Your task to perform on an android device: Open the web browser Image 0: 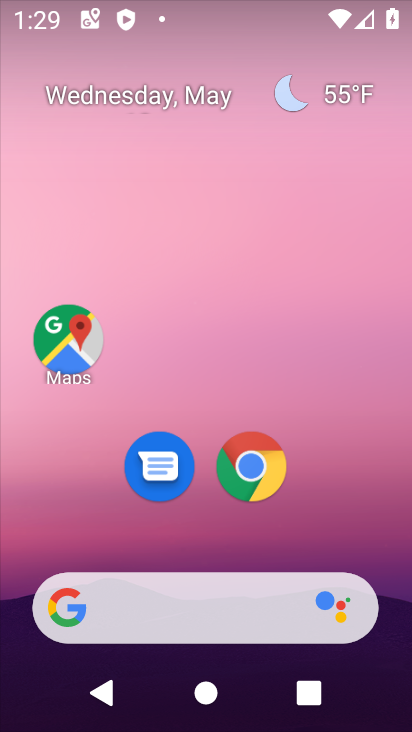
Step 0: click (251, 461)
Your task to perform on an android device: Open the web browser Image 1: 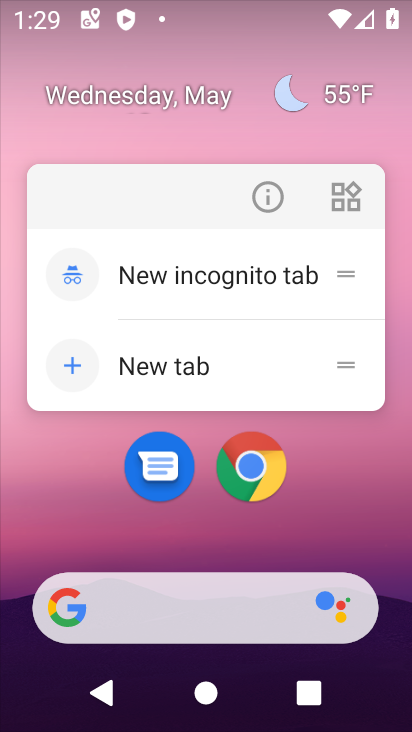
Step 1: click (251, 461)
Your task to perform on an android device: Open the web browser Image 2: 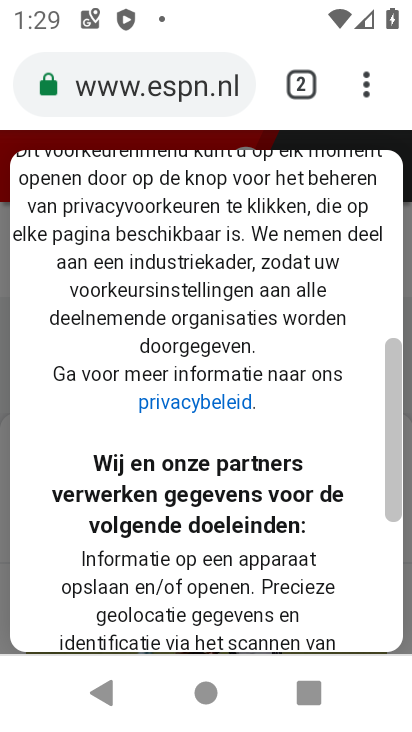
Step 2: task complete